Your task to perform on an android device: What is the capital of Norway? Image 0: 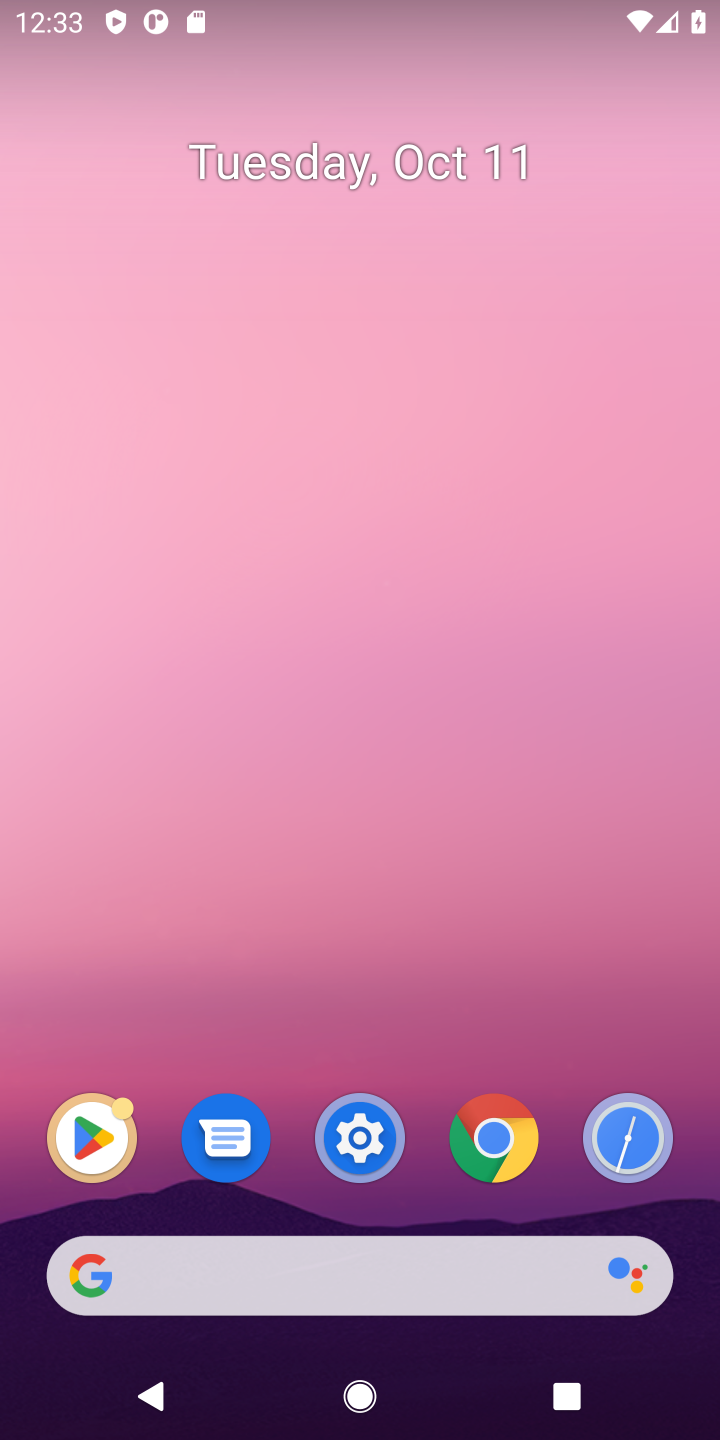
Step 0: press home button
Your task to perform on an android device: What is the capital of Norway? Image 1: 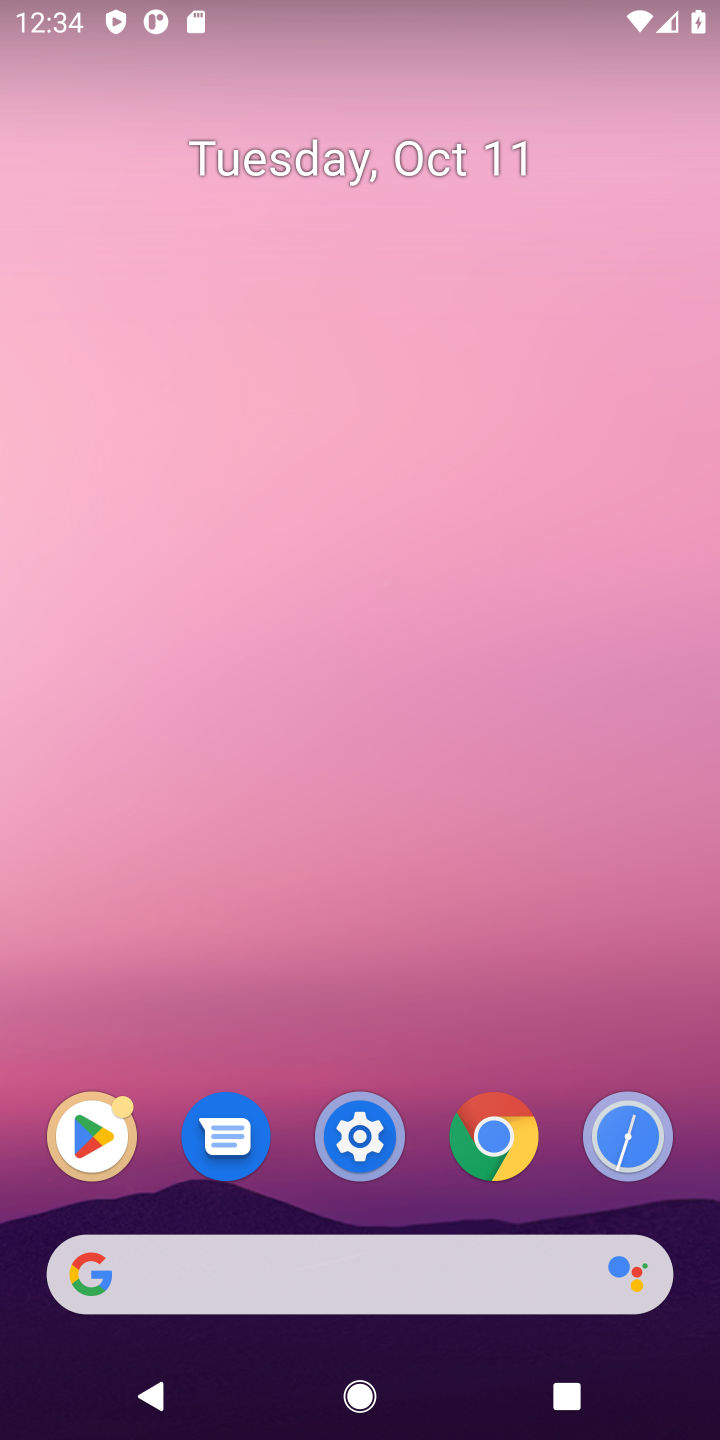
Step 1: click (132, 1267)
Your task to perform on an android device: What is the capital of Norway? Image 2: 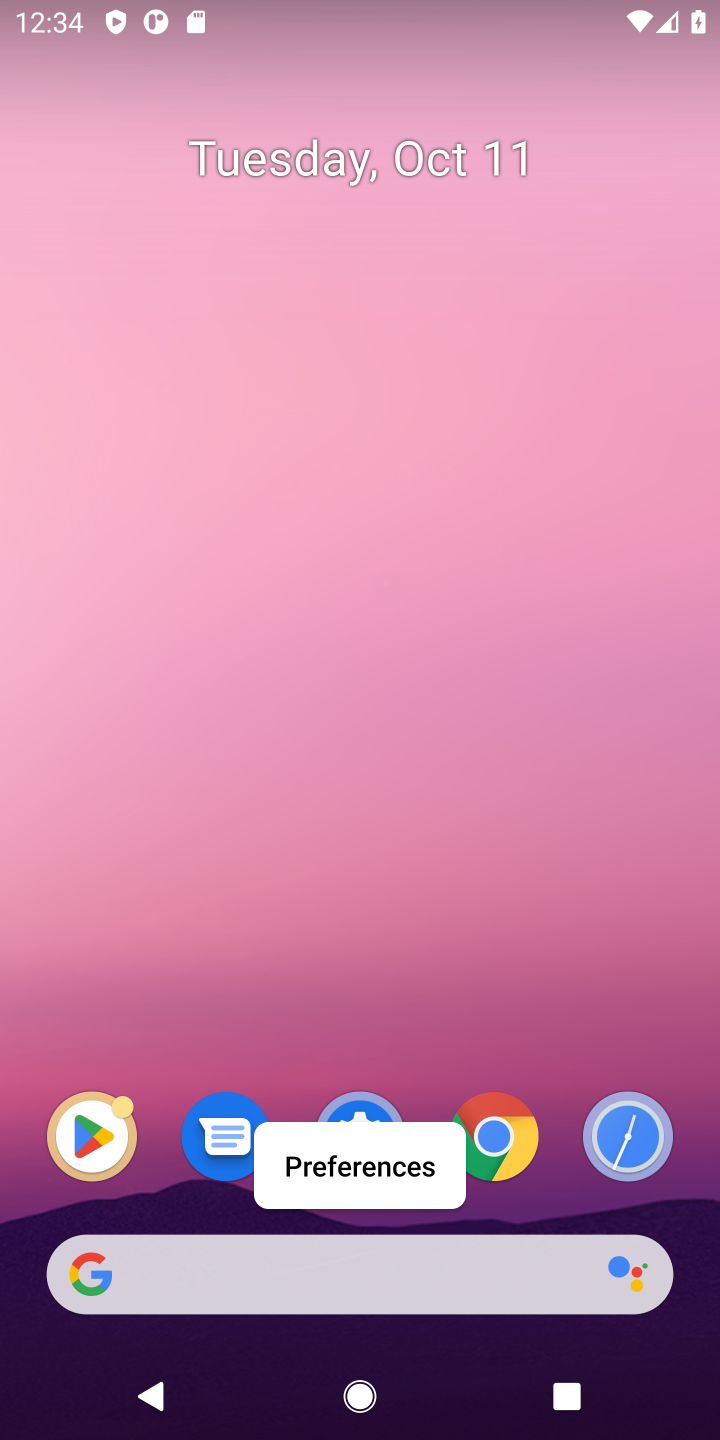
Step 2: click (132, 1266)
Your task to perform on an android device: What is the capital of Norway? Image 3: 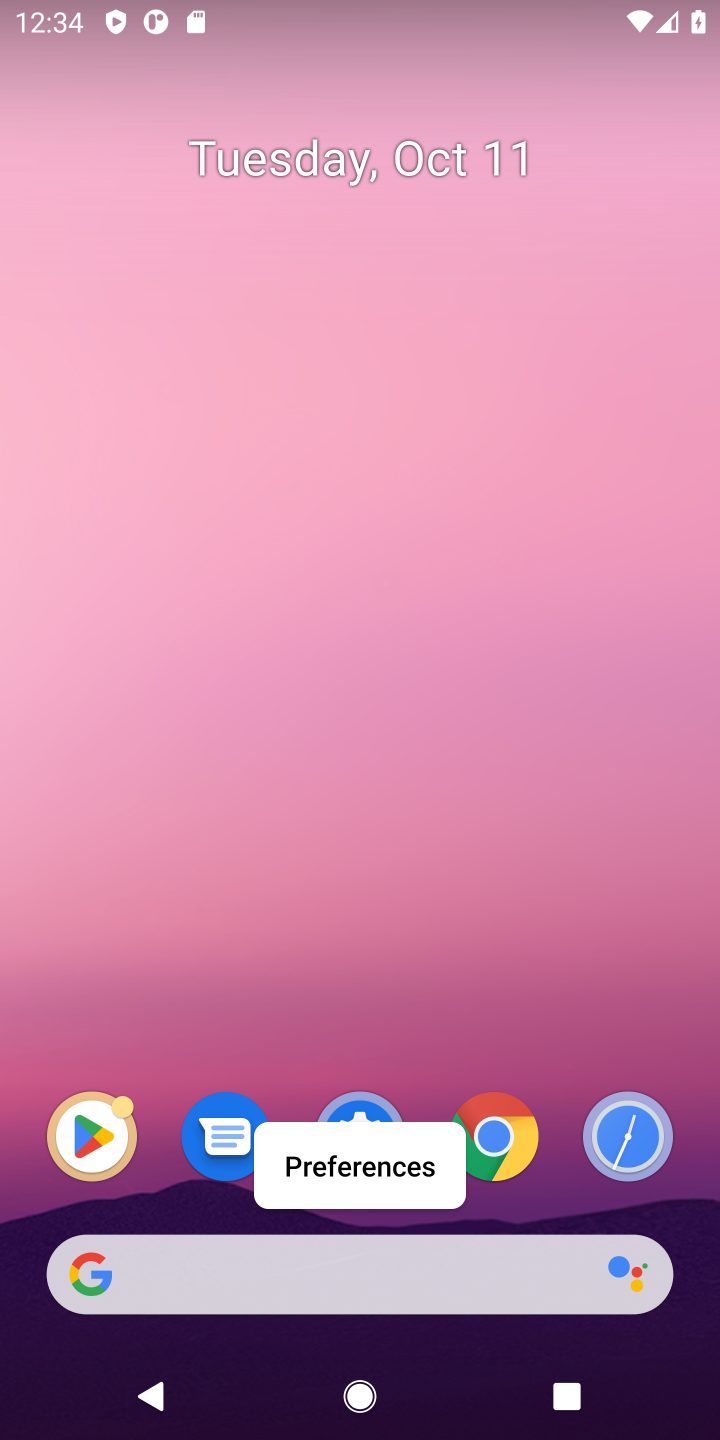
Step 3: click (125, 1282)
Your task to perform on an android device: What is the capital of Norway? Image 4: 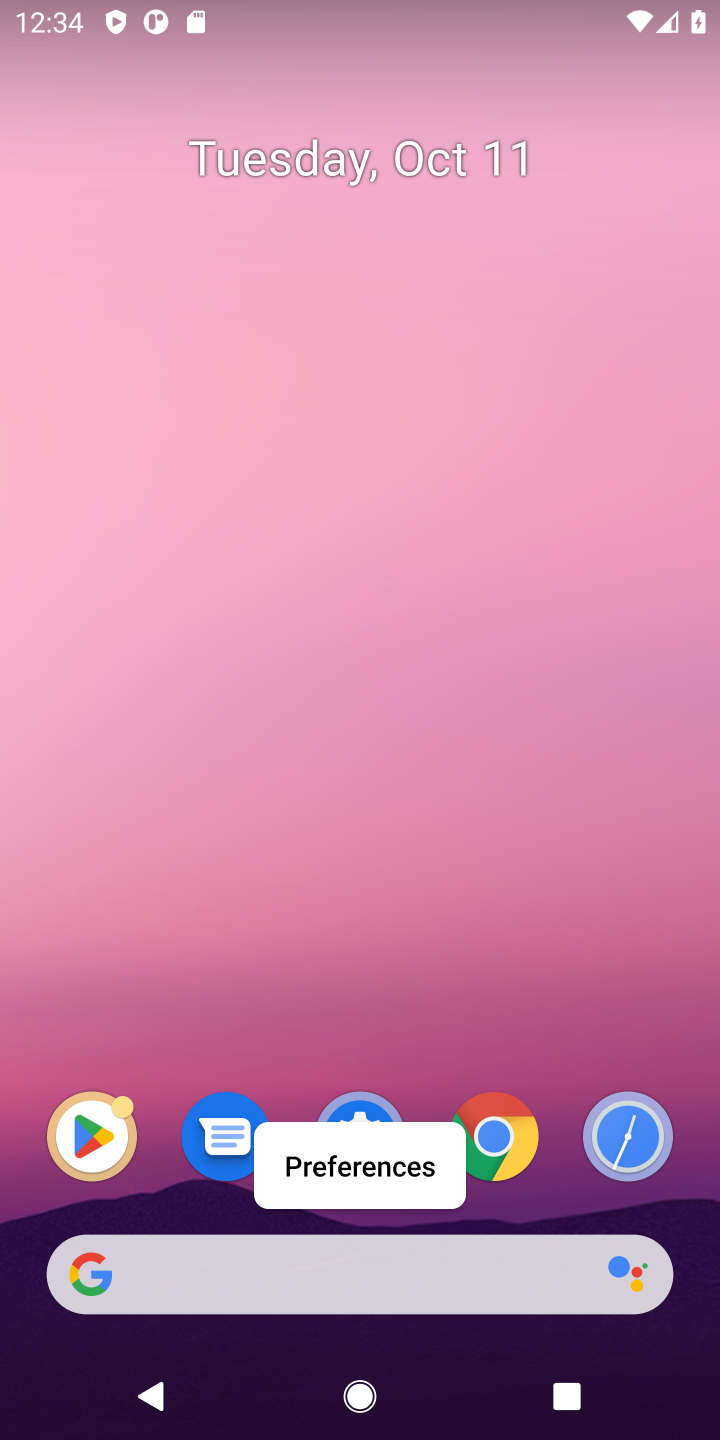
Step 4: click (156, 1284)
Your task to perform on an android device: What is the capital of Norway? Image 5: 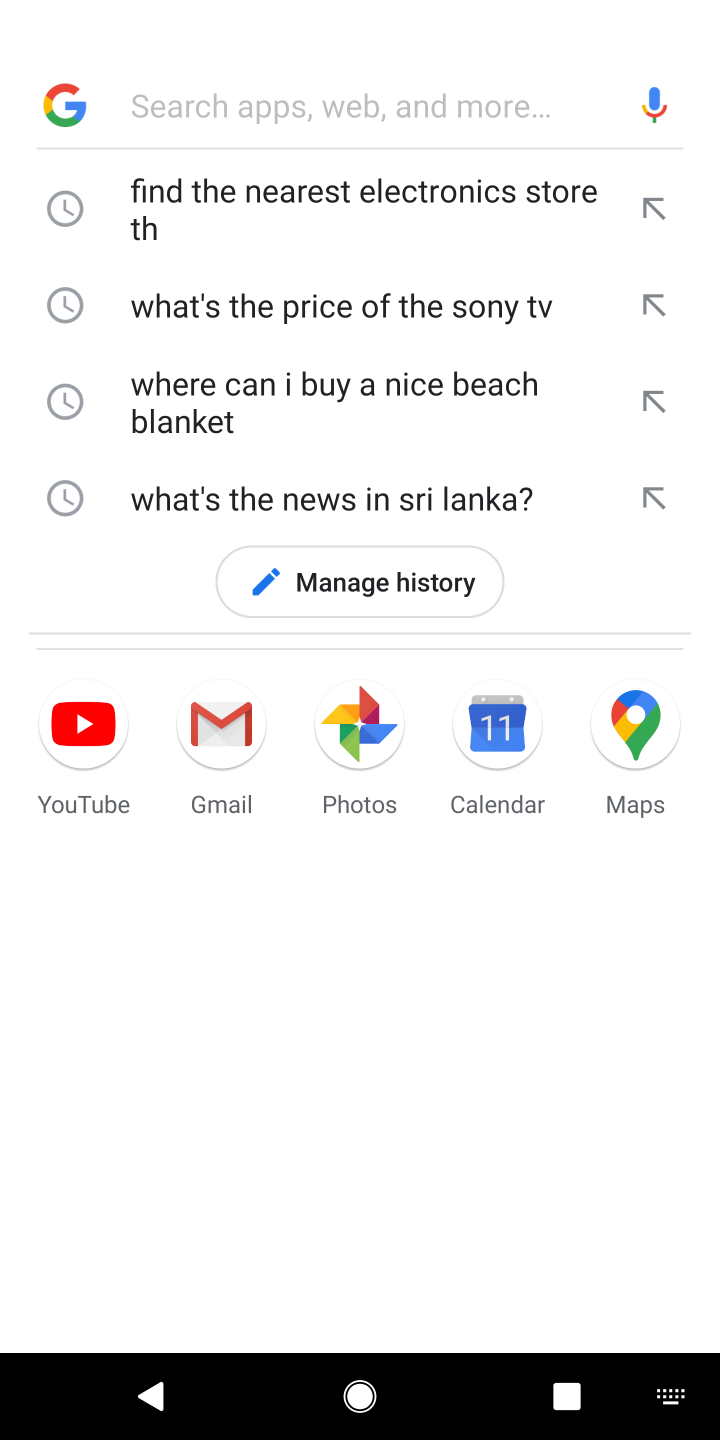
Step 5: type "What is the capital of Norway?"
Your task to perform on an android device: What is the capital of Norway? Image 6: 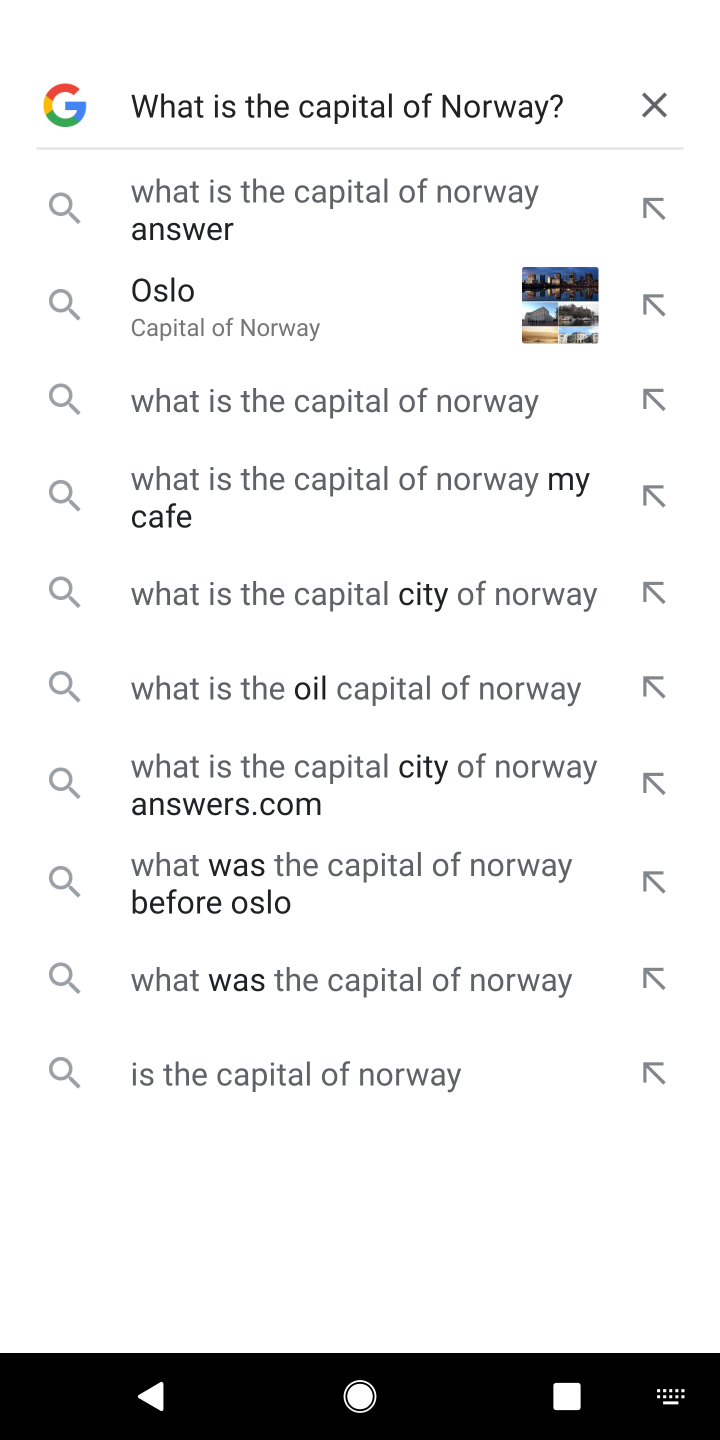
Step 6: press enter
Your task to perform on an android device: What is the capital of Norway? Image 7: 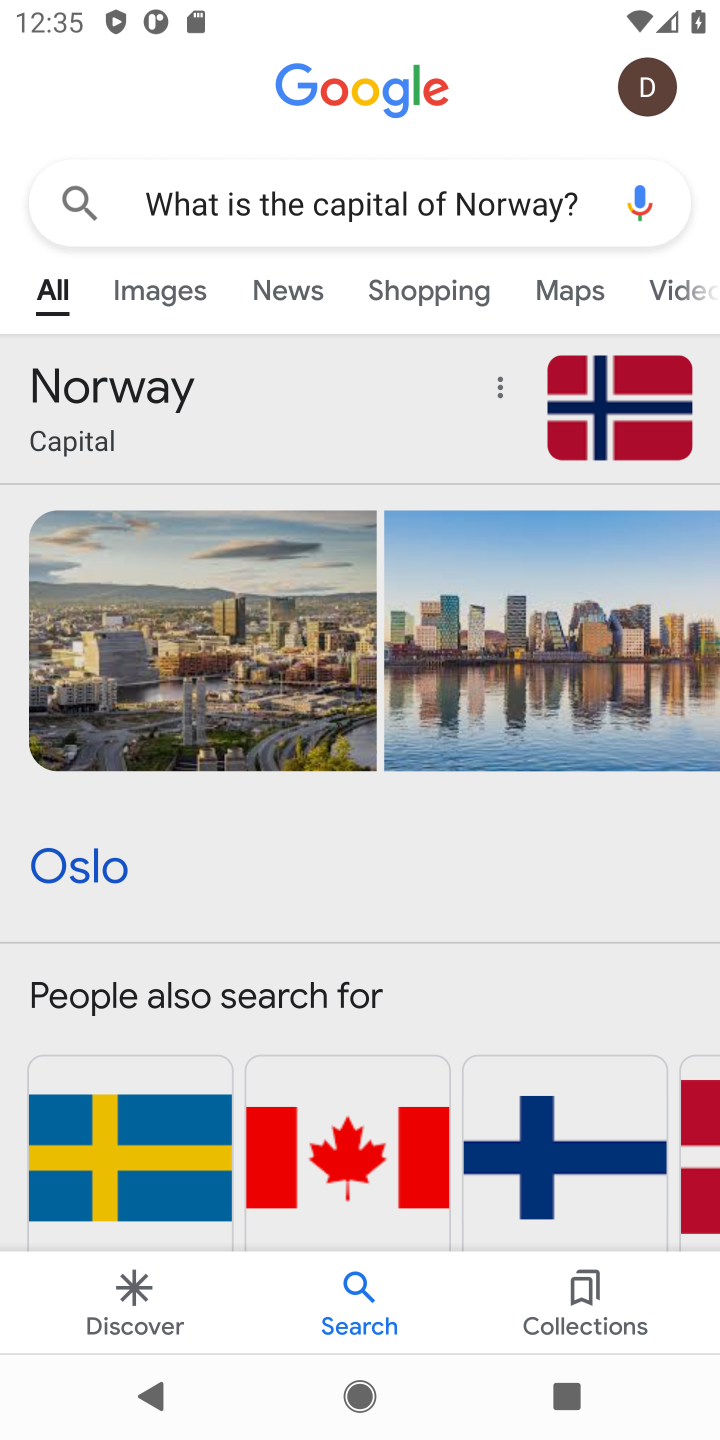
Step 7: task complete